Your task to perform on an android device: toggle improve location accuracy Image 0: 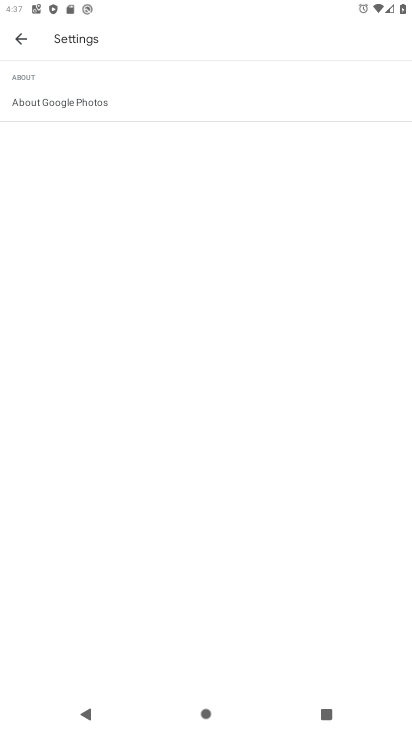
Step 0: press home button
Your task to perform on an android device: toggle improve location accuracy Image 1: 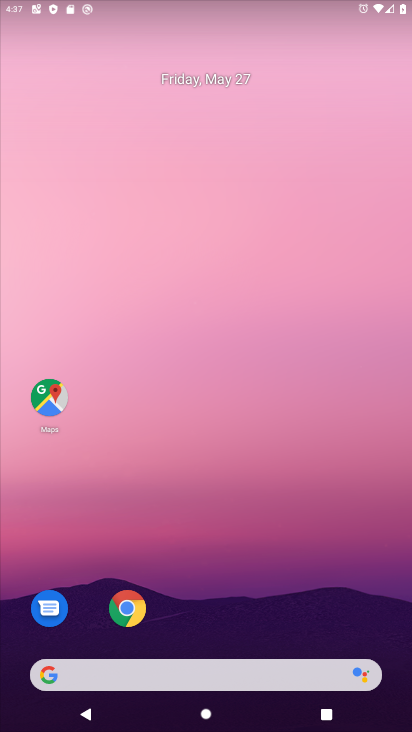
Step 1: drag from (203, 662) to (243, 215)
Your task to perform on an android device: toggle improve location accuracy Image 2: 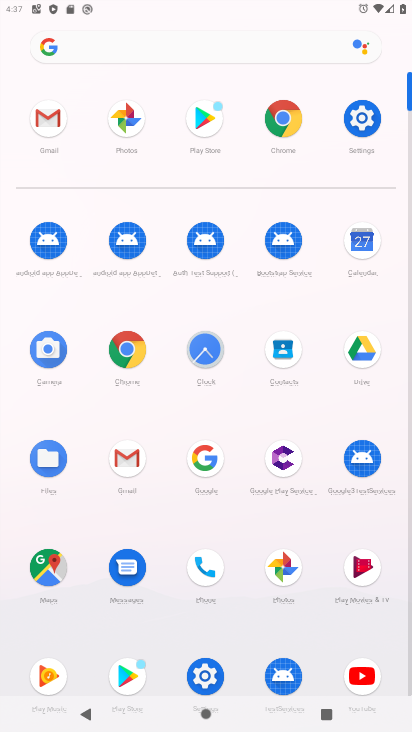
Step 2: click (194, 677)
Your task to perform on an android device: toggle improve location accuracy Image 3: 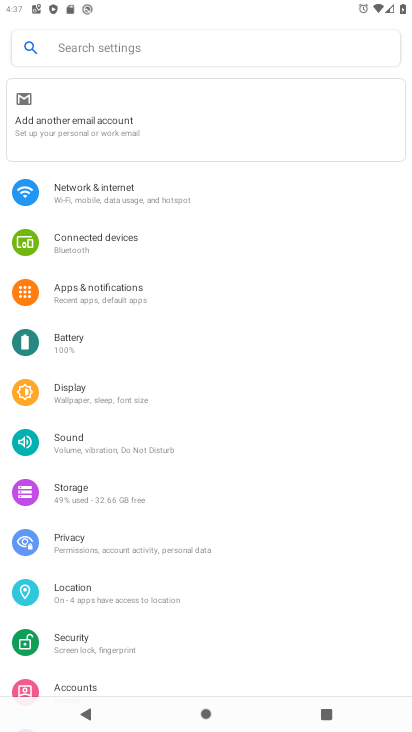
Step 3: click (81, 292)
Your task to perform on an android device: toggle improve location accuracy Image 4: 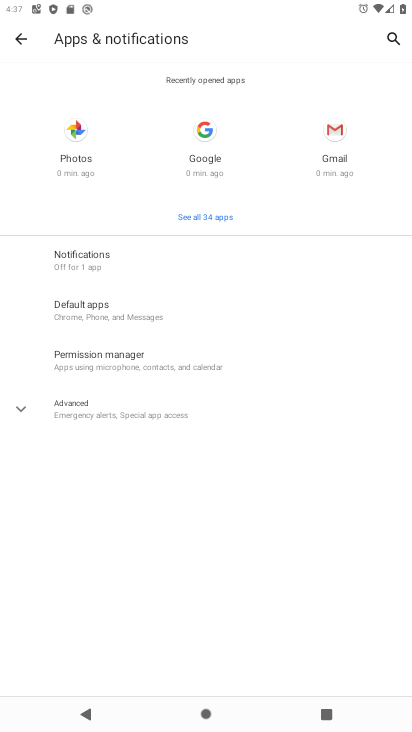
Step 4: press home button
Your task to perform on an android device: toggle improve location accuracy Image 5: 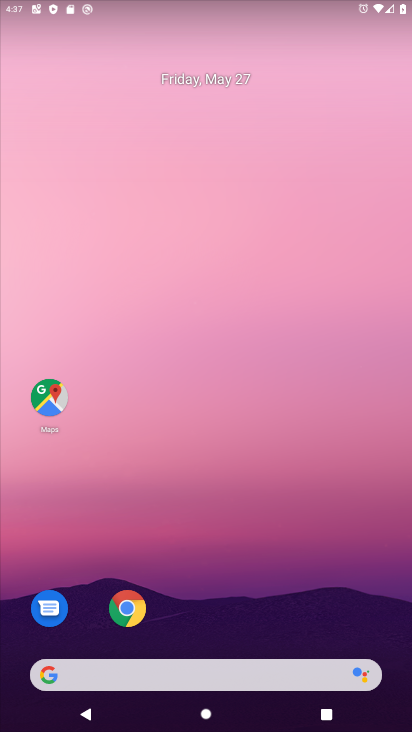
Step 5: drag from (179, 650) to (219, 218)
Your task to perform on an android device: toggle improve location accuracy Image 6: 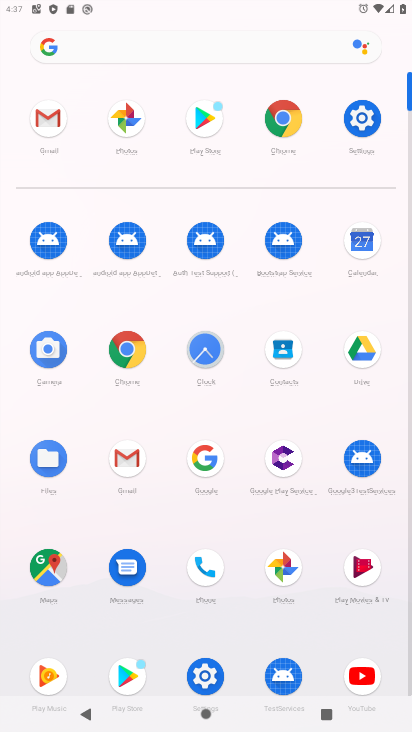
Step 6: click (199, 668)
Your task to perform on an android device: toggle improve location accuracy Image 7: 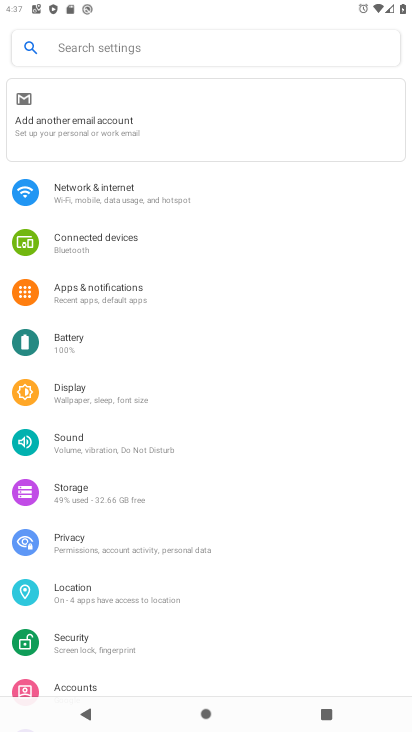
Step 7: click (74, 593)
Your task to perform on an android device: toggle improve location accuracy Image 8: 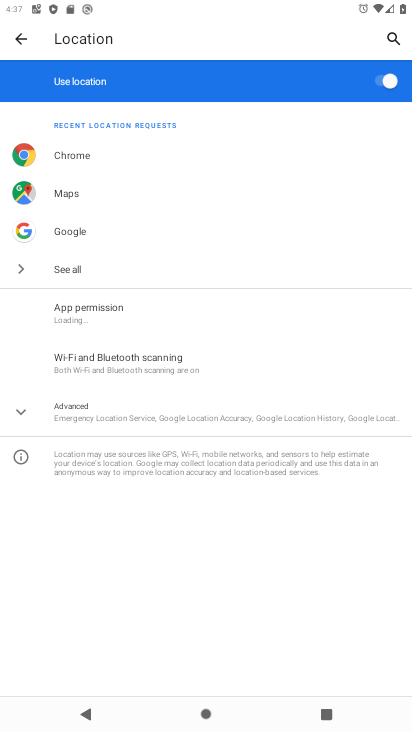
Step 8: click (82, 311)
Your task to perform on an android device: toggle improve location accuracy Image 9: 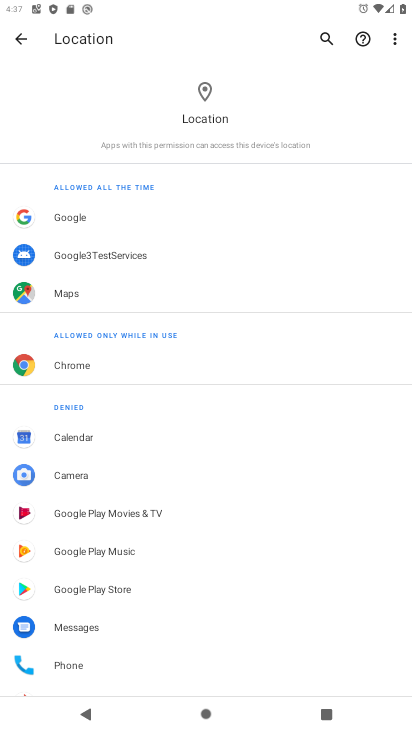
Step 9: click (18, 39)
Your task to perform on an android device: toggle improve location accuracy Image 10: 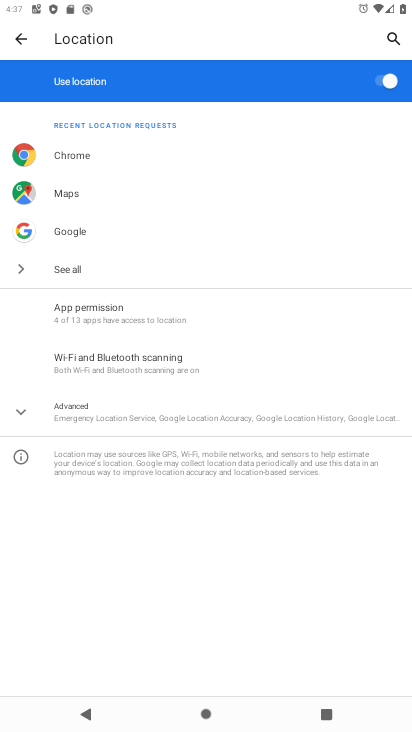
Step 10: drag from (103, 411) to (221, 411)
Your task to perform on an android device: toggle improve location accuracy Image 11: 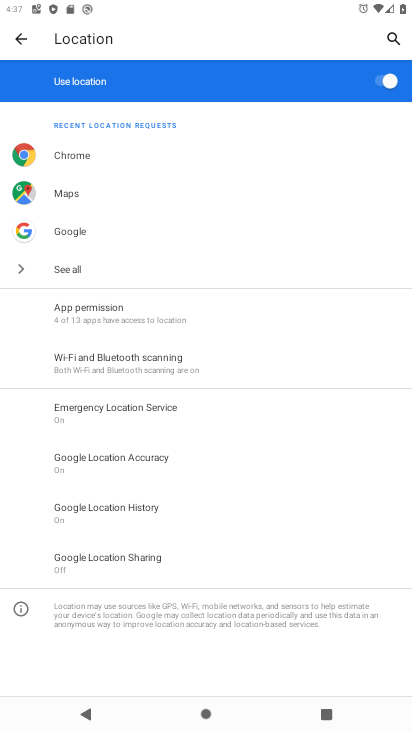
Step 11: click (108, 460)
Your task to perform on an android device: toggle improve location accuracy Image 12: 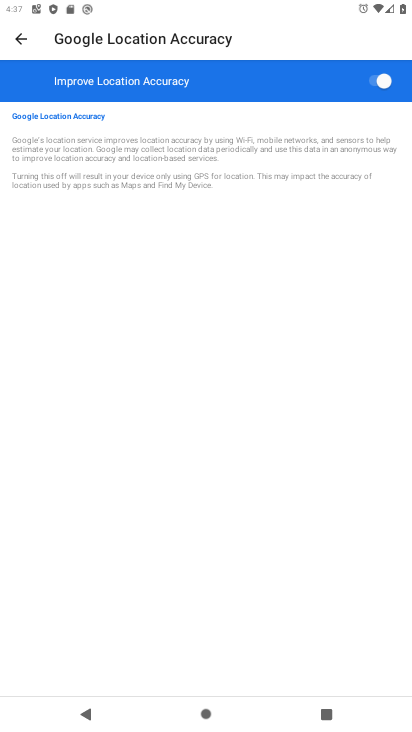
Step 12: click (373, 80)
Your task to perform on an android device: toggle improve location accuracy Image 13: 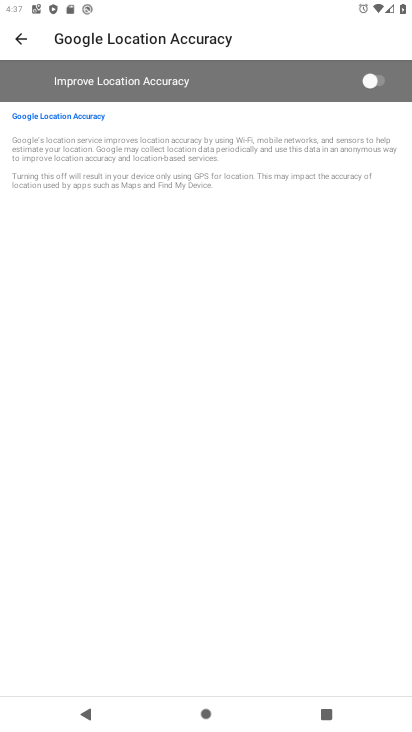
Step 13: task complete